Your task to perform on an android device: toggle pop-ups in chrome Image 0: 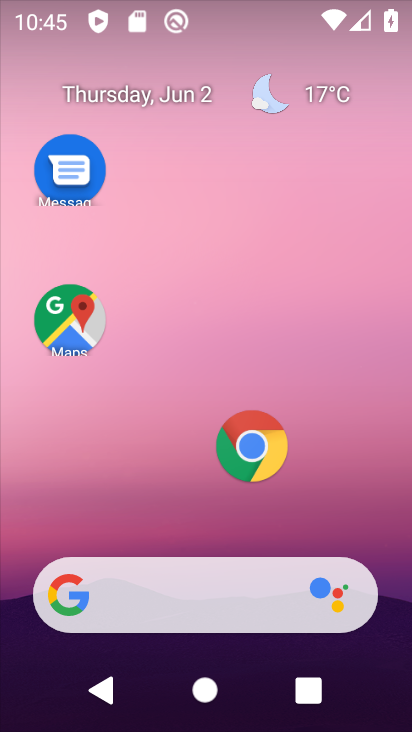
Step 0: press home button
Your task to perform on an android device: toggle pop-ups in chrome Image 1: 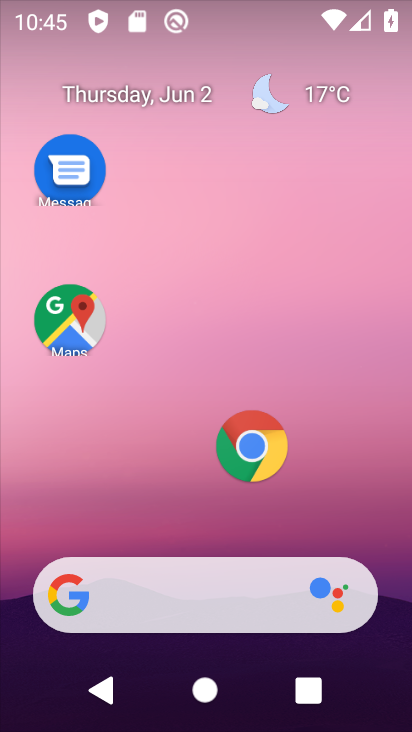
Step 1: click (251, 443)
Your task to perform on an android device: toggle pop-ups in chrome Image 2: 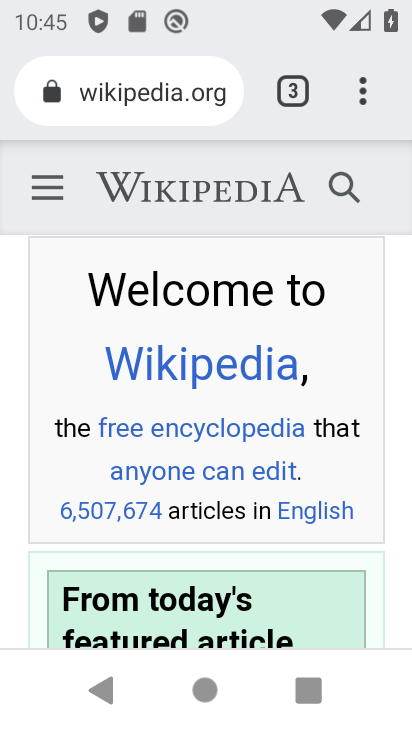
Step 2: drag from (362, 91) to (131, 476)
Your task to perform on an android device: toggle pop-ups in chrome Image 3: 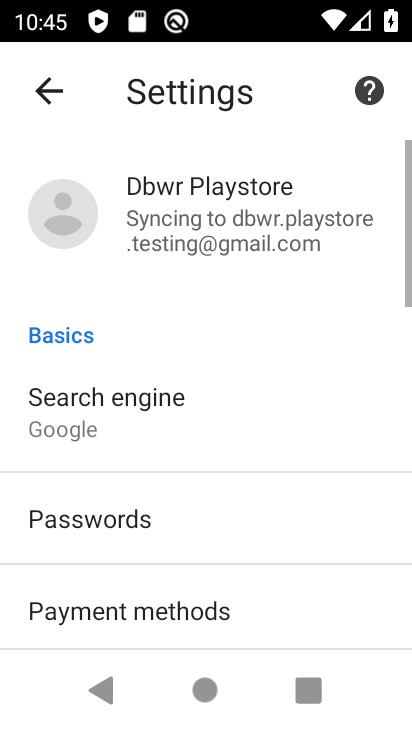
Step 3: drag from (235, 576) to (323, 166)
Your task to perform on an android device: toggle pop-ups in chrome Image 4: 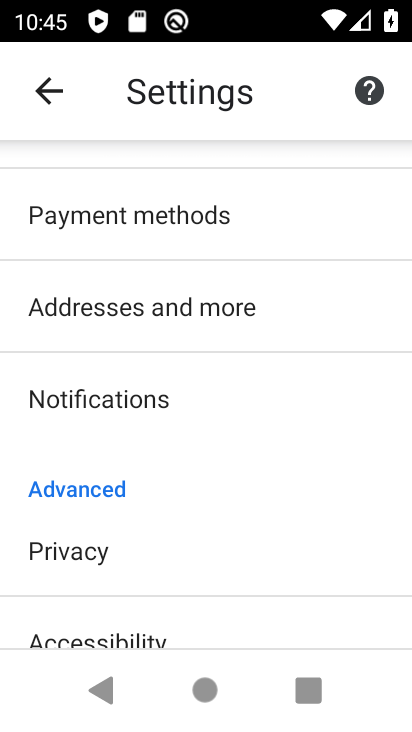
Step 4: drag from (295, 535) to (324, 290)
Your task to perform on an android device: toggle pop-ups in chrome Image 5: 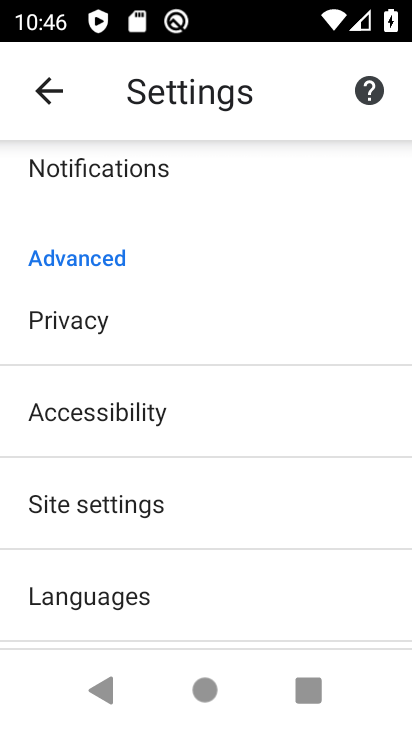
Step 5: click (53, 488)
Your task to perform on an android device: toggle pop-ups in chrome Image 6: 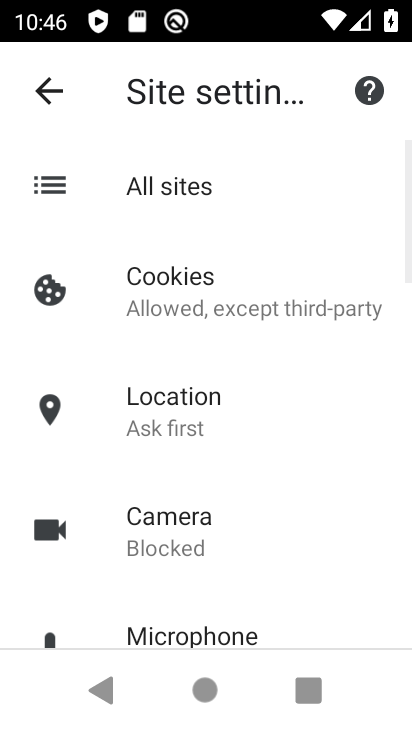
Step 6: drag from (115, 548) to (229, 72)
Your task to perform on an android device: toggle pop-ups in chrome Image 7: 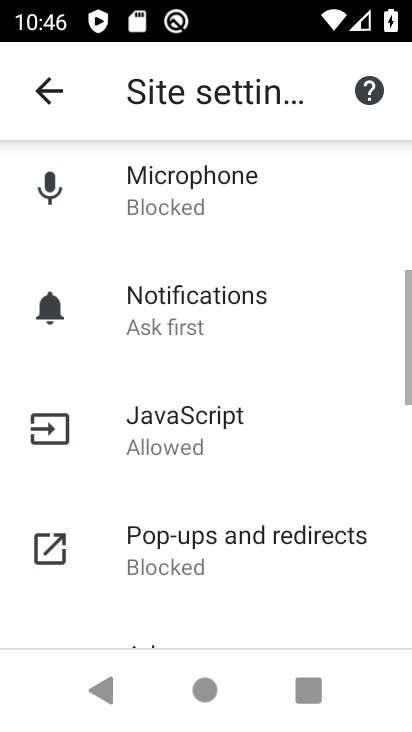
Step 7: click (225, 532)
Your task to perform on an android device: toggle pop-ups in chrome Image 8: 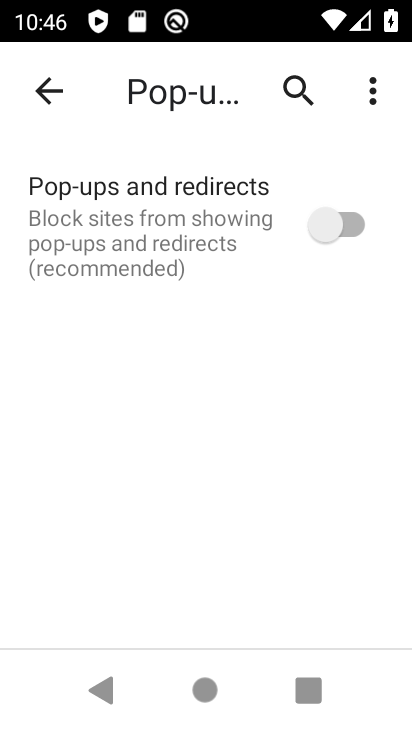
Step 8: click (230, 239)
Your task to perform on an android device: toggle pop-ups in chrome Image 9: 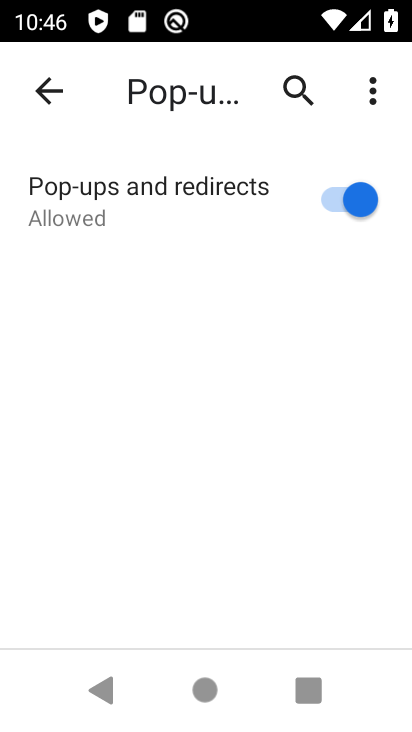
Step 9: task complete